Your task to perform on an android device: set the stopwatch Image 0: 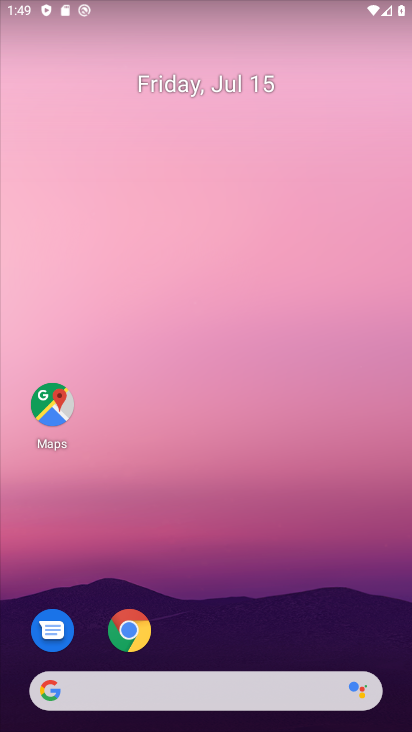
Step 0: drag from (204, 642) to (158, 246)
Your task to perform on an android device: set the stopwatch Image 1: 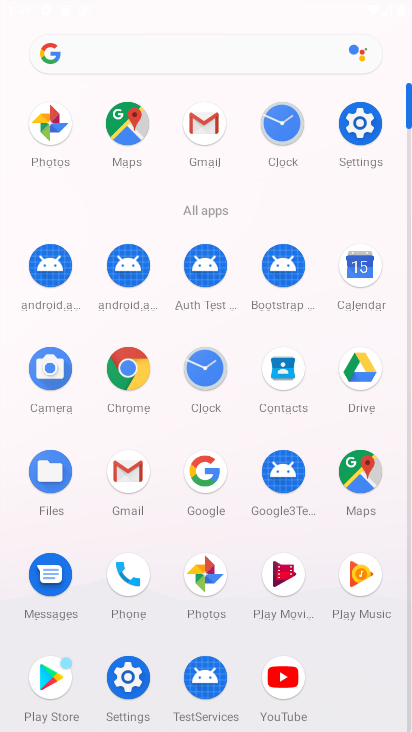
Step 1: click (269, 143)
Your task to perform on an android device: set the stopwatch Image 2: 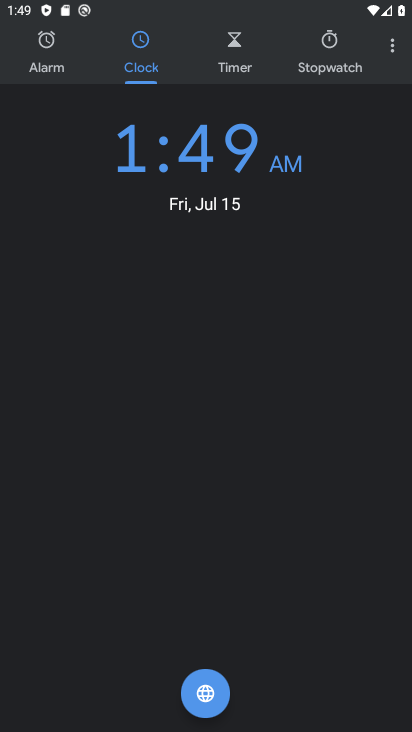
Step 2: click (334, 61)
Your task to perform on an android device: set the stopwatch Image 3: 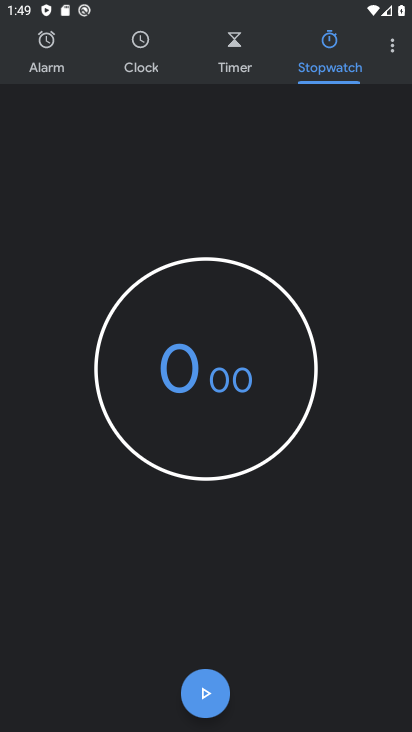
Step 3: click (195, 685)
Your task to perform on an android device: set the stopwatch Image 4: 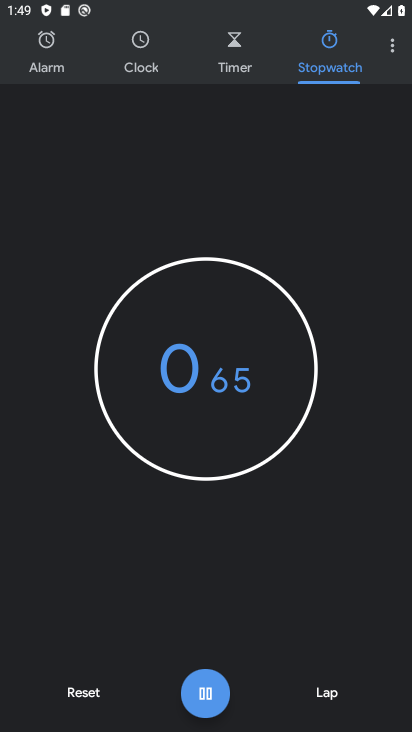
Step 4: task complete